Your task to perform on an android device: see creations saved in the google photos Image 0: 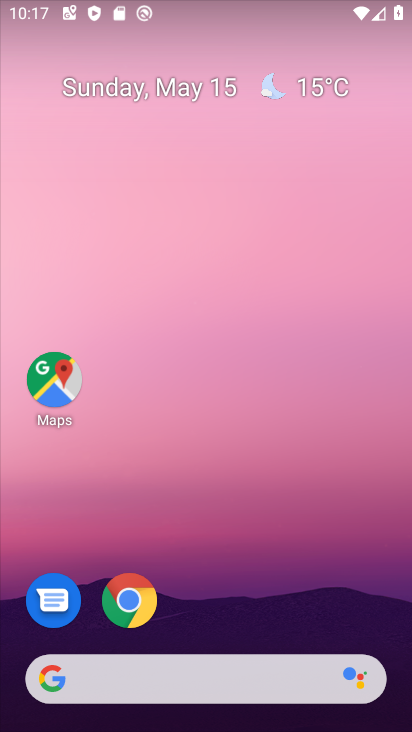
Step 0: drag from (346, 601) to (367, 177)
Your task to perform on an android device: see creations saved in the google photos Image 1: 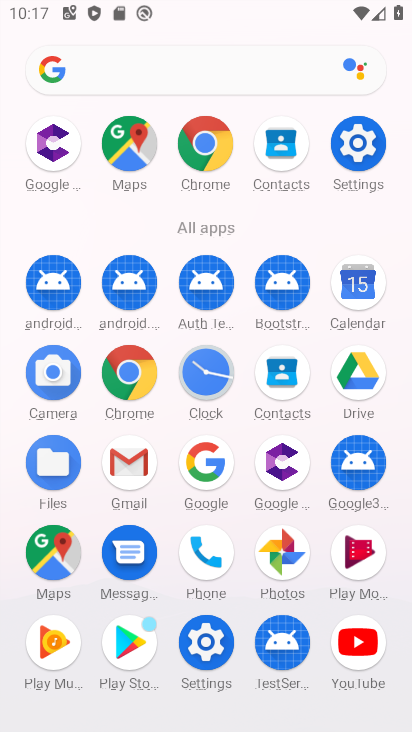
Step 1: click (288, 552)
Your task to perform on an android device: see creations saved in the google photos Image 2: 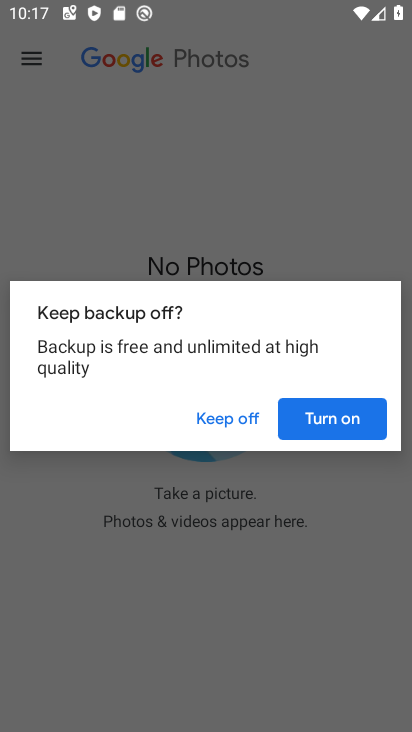
Step 2: click (323, 429)
Your task to perform on an android device: see creations saved in the google photos Image 3: 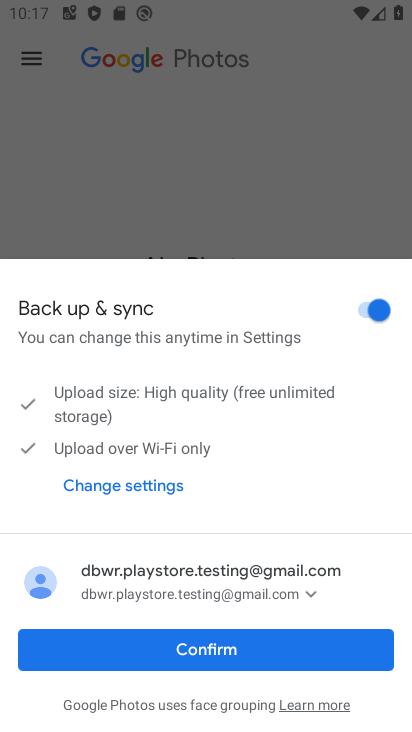
Step 3: click (281, 652)
Your task to perform on an android device: see creations saved in the google photos Image 4: 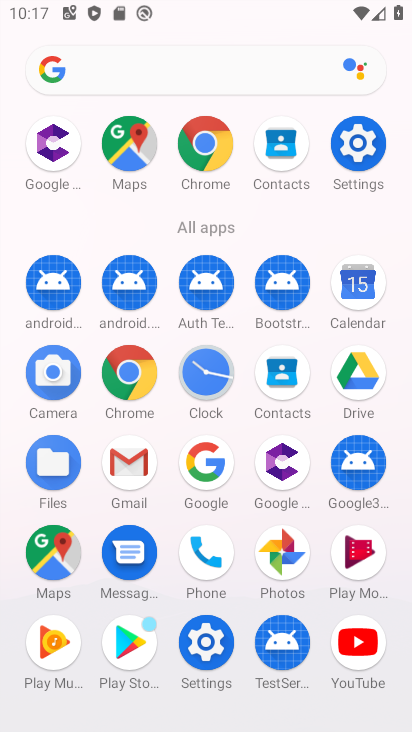
Step 4: click (266, 527)
Your task to perform on an android device: see creations saved in the google photos Image 5: 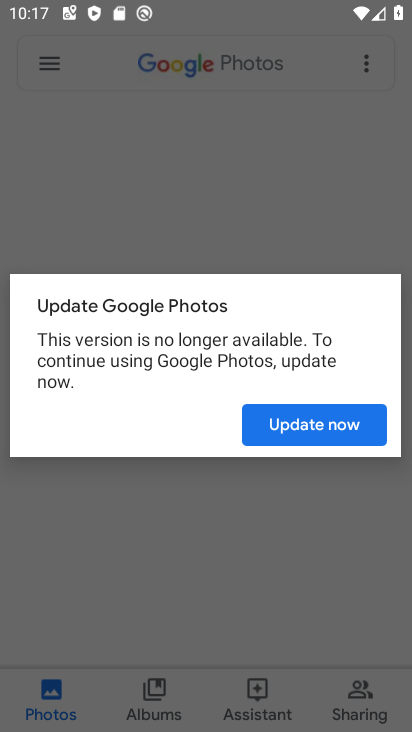
Step 5: click (312, 426)
Your task to perform on an android device: see creations saved in the google photos Image 6: 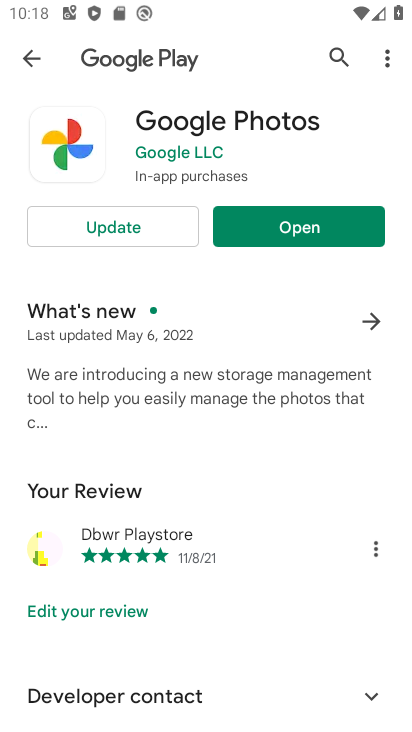
Step 6: click (132, 230)
Your task to perform on an android device: see creations saved in the google photos Image 7: 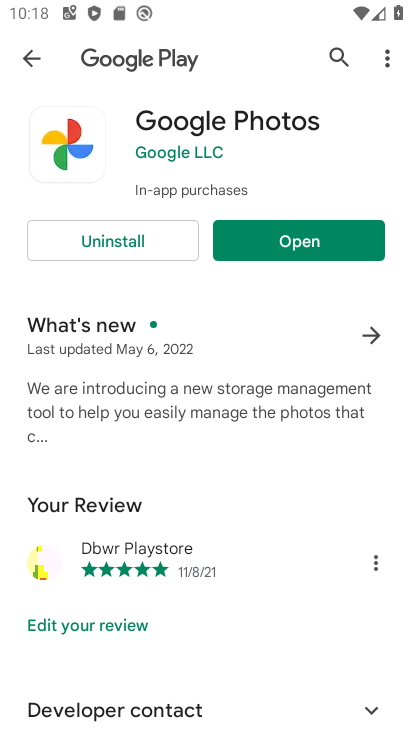
Step 7: click (274, 227)
Your task to perform on an android device: see creations saved in the google photos Image 8: 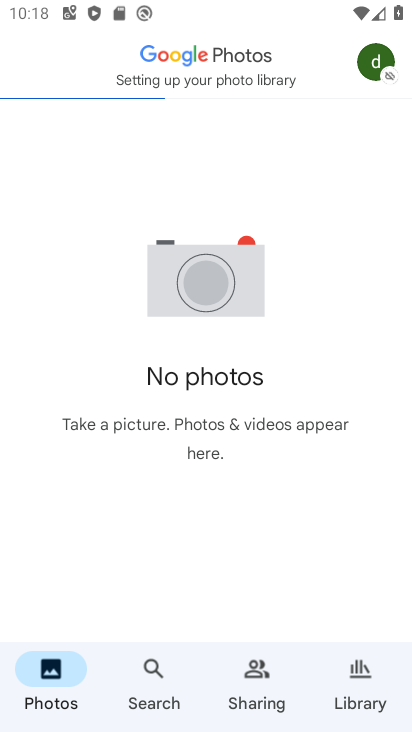
Step 8: click (154, 676)
Your task to perform on an android device: see creations saved in the google photos Image 9: 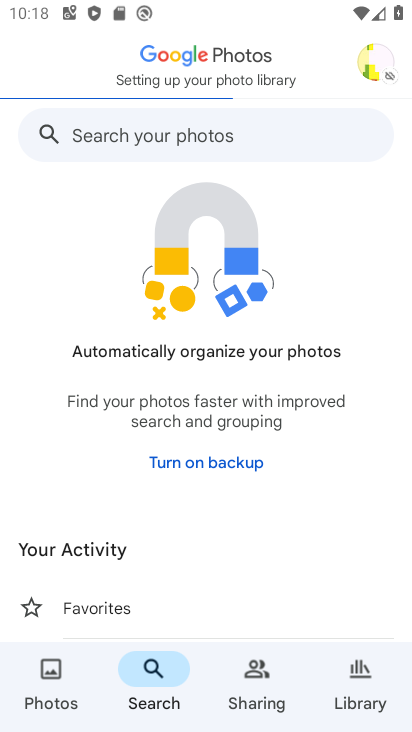
Step 9: drag from (300, 552) to (312, 332)
Your task to perform on an android device: see creations saved in the google photos Image 10: 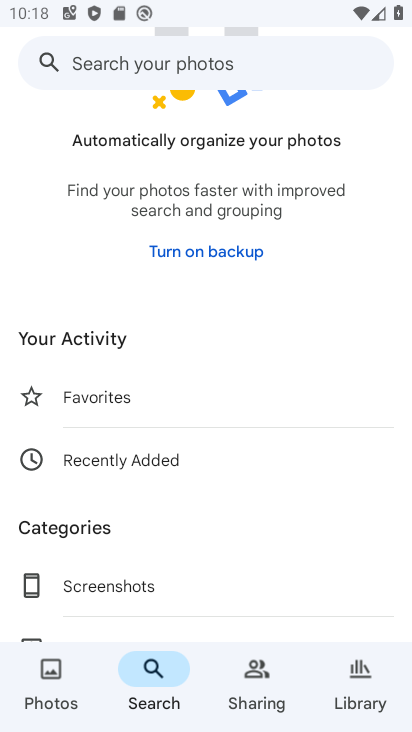
Step 10: drag from (293, 564) to (302, 321)
Your task to perform on an android device: see creations saved in the google photos Image 11: 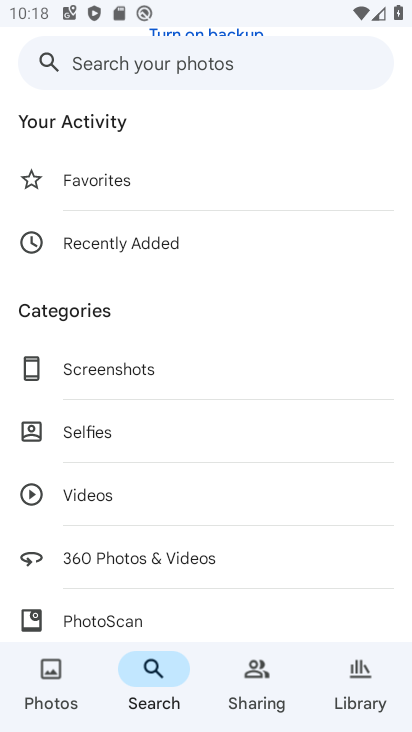
Step 11: drag from (298, 598) to (303, 316)
Your task to perform on an android device: see creations saved in the google photos Image 12: 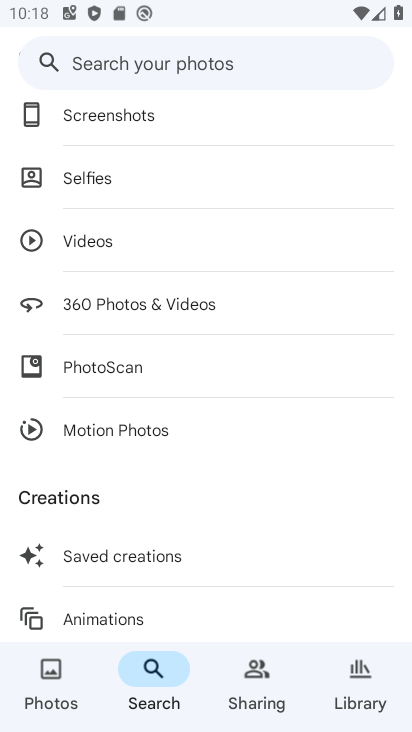
Step 12: click (145, 567)
Your task to perform on an android device: see creations saved in the google photos Image 13: 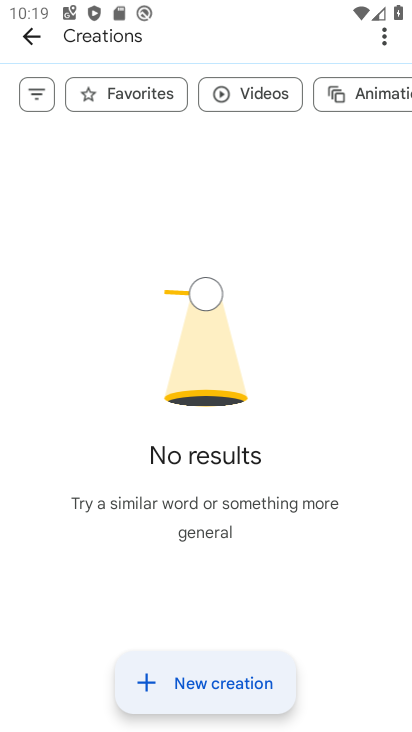
Step 13: task complete